Your task to perform on an android device: change the upload size in google photos Image 0: 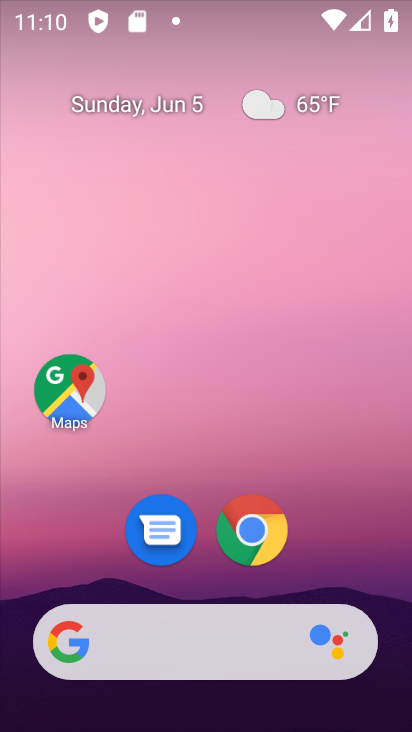
Step 0: drag from (361, 456) to (334, 13)
Your task to perform on an android device: change the upload size in google photos Image 1: 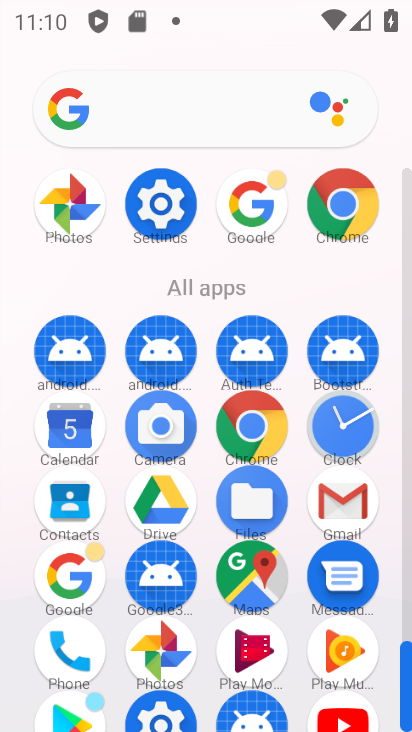
Step 1: click (69, 202)
Your task to perform on an android device: change the upload size in google photos Image 2: 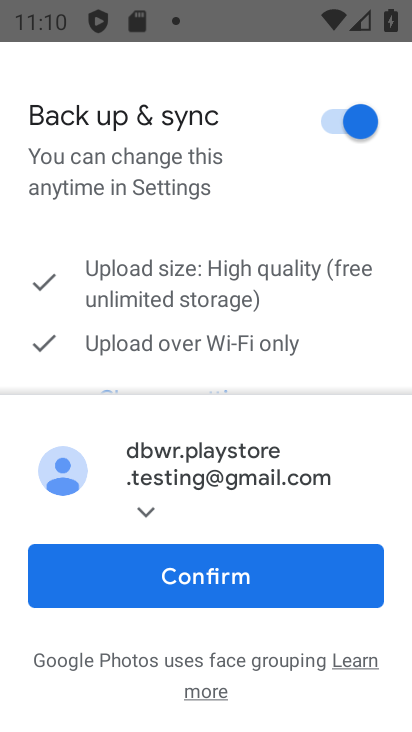
Step 2: click (217, 583)
Your task to perform on an android device: change the upload size in google photos Image 3: 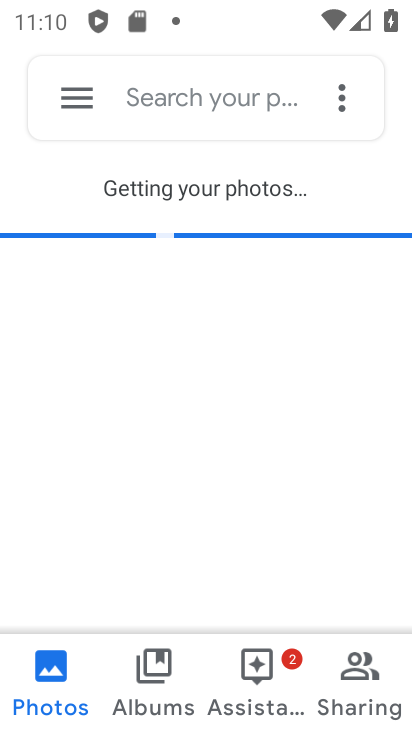
Step 3: click (56, 109)
Your task to perform on an android device: change the upload size in google photos Image 4: 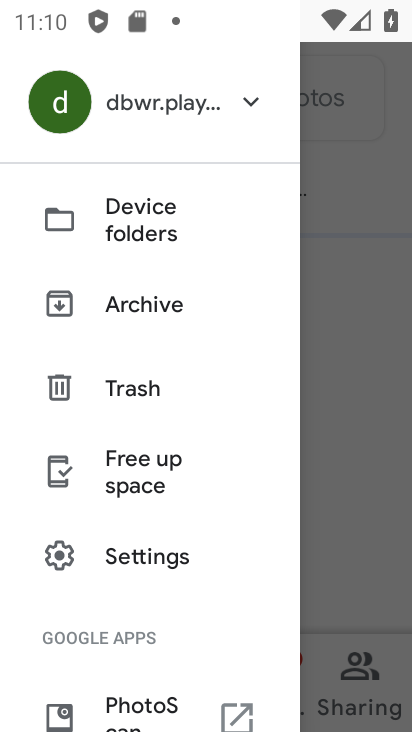
Step 4: click (122, 575)
Your task to perform on an android device: change the upload size in google photos Image 5: 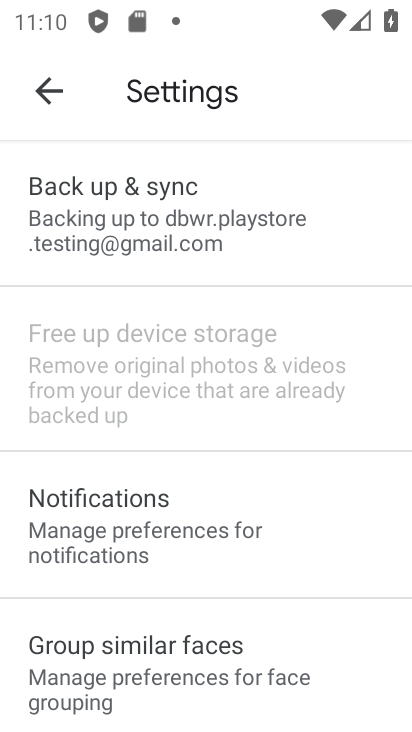
Step 5: click (140, 230)
Your task to perform on an android device: change the upload size in google photos Image 6: 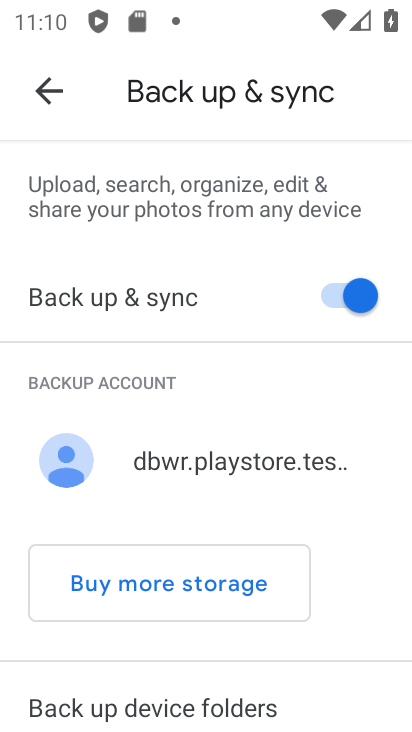
Step 6: drag from (251, 614) to (240, 153)
Your task to perform on an android device: change the upload size in google photos Image 7: 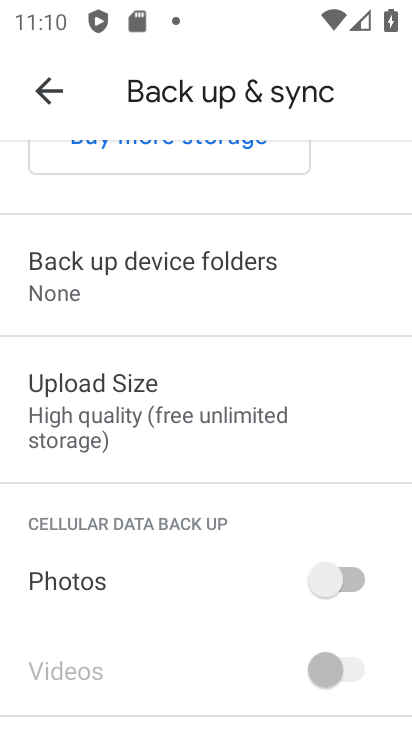
Step 7: click (145, 415)
Your task to perform on an android device: change the upload size in google photos Image 8: 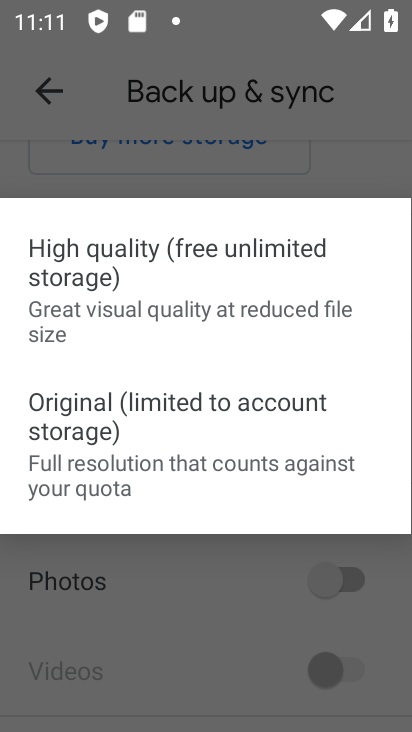
Step 8: click (125, 441)
Your task to perform on an android device: change the upload size in google photos Image 9: 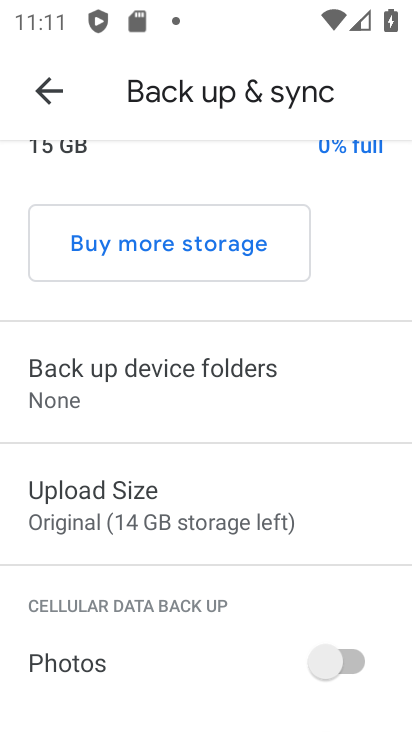
Step 9: task complete